Your task to perform on an android device: Do I have any events this weekend? Image 0: 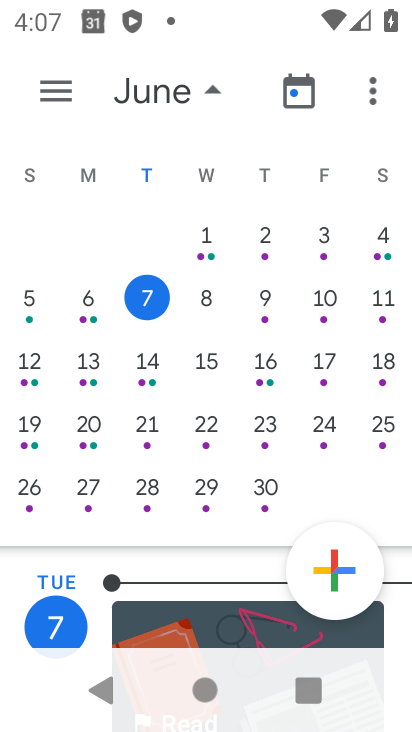
Step 0: press home button
Your task to perform on an android device: Do I have any events this weekend? Image 1: 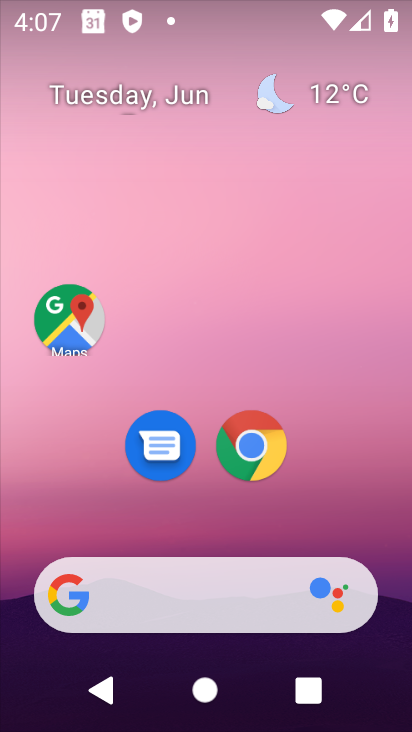
Step 1: drag from (309, 289) to (276, 10)
Your task to perform on an android device: Do I have any events this weekend? Image 2: 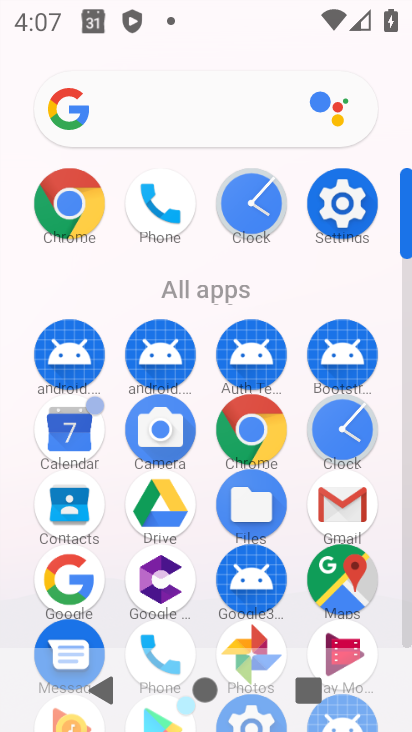
Step 2: click (71, 461)
Your task to perform on an android device: Do I have any events this weekend? Image 3: 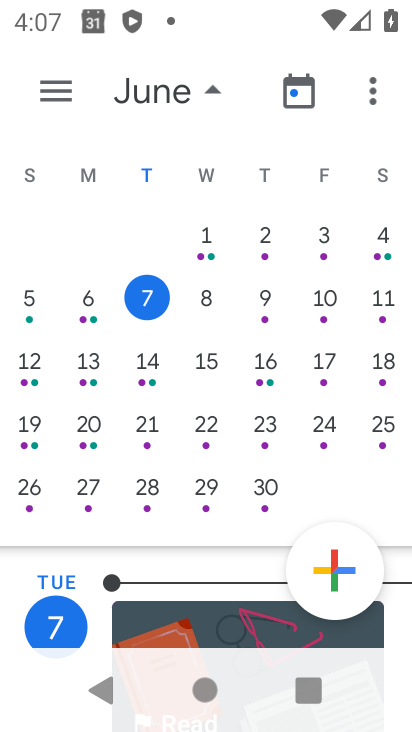
Step 3: click (378, 309)
Your task to perform on an android device: Do I have any events this weekend? Image 4: 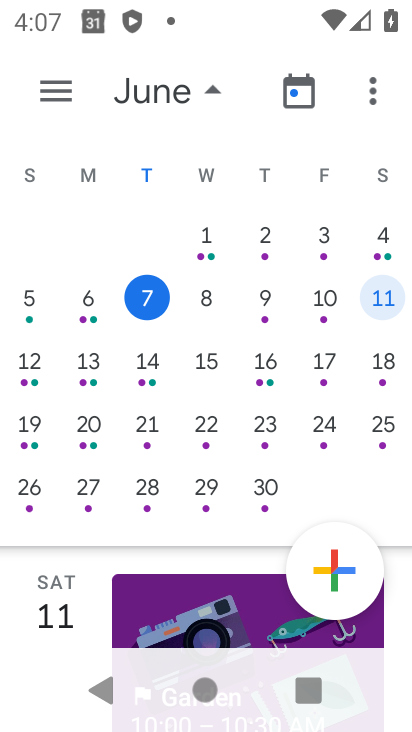
Step 4: task complete